Your task to perform on an android device: Search for the best running shoes on Nike. Image 0: 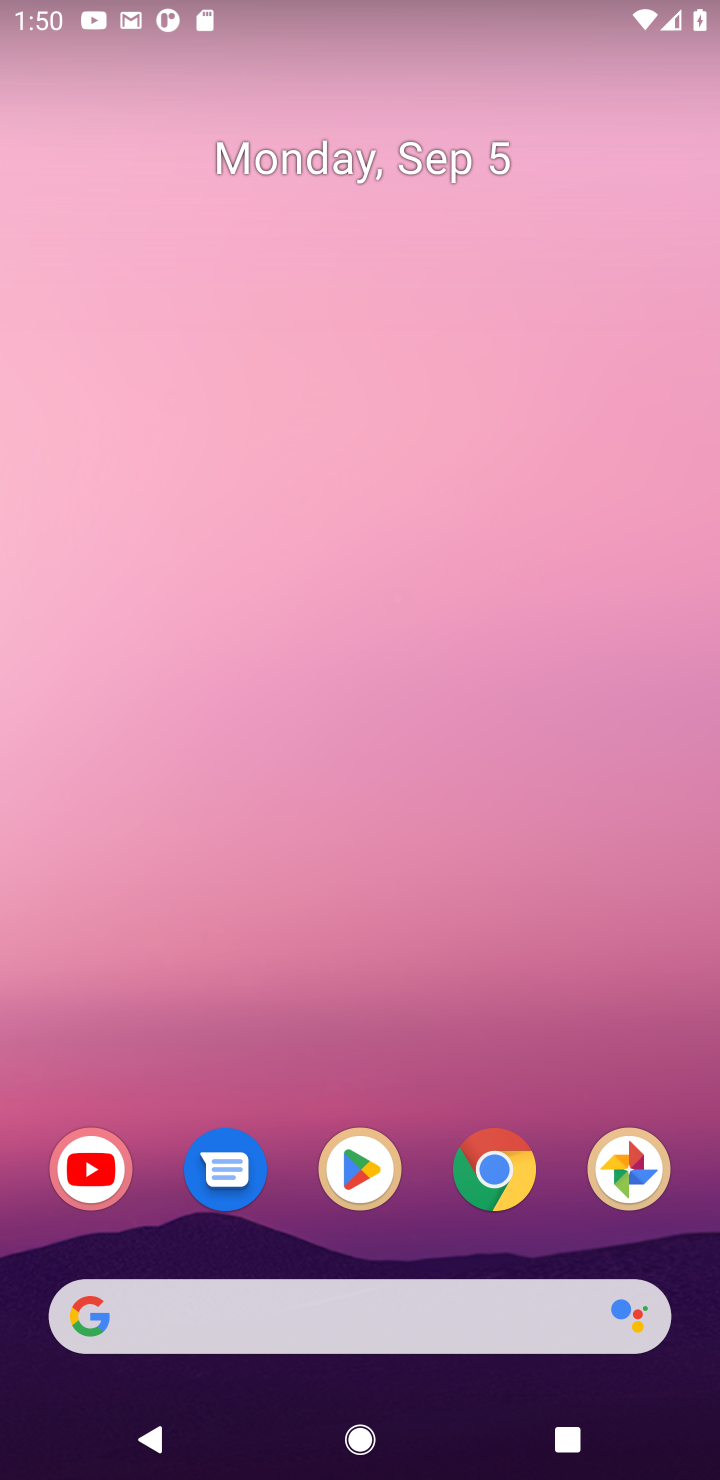
Step 0: click (355, 1184)
Your task to perform on an android device: Search for the best running shoes on Nike. Image 1: 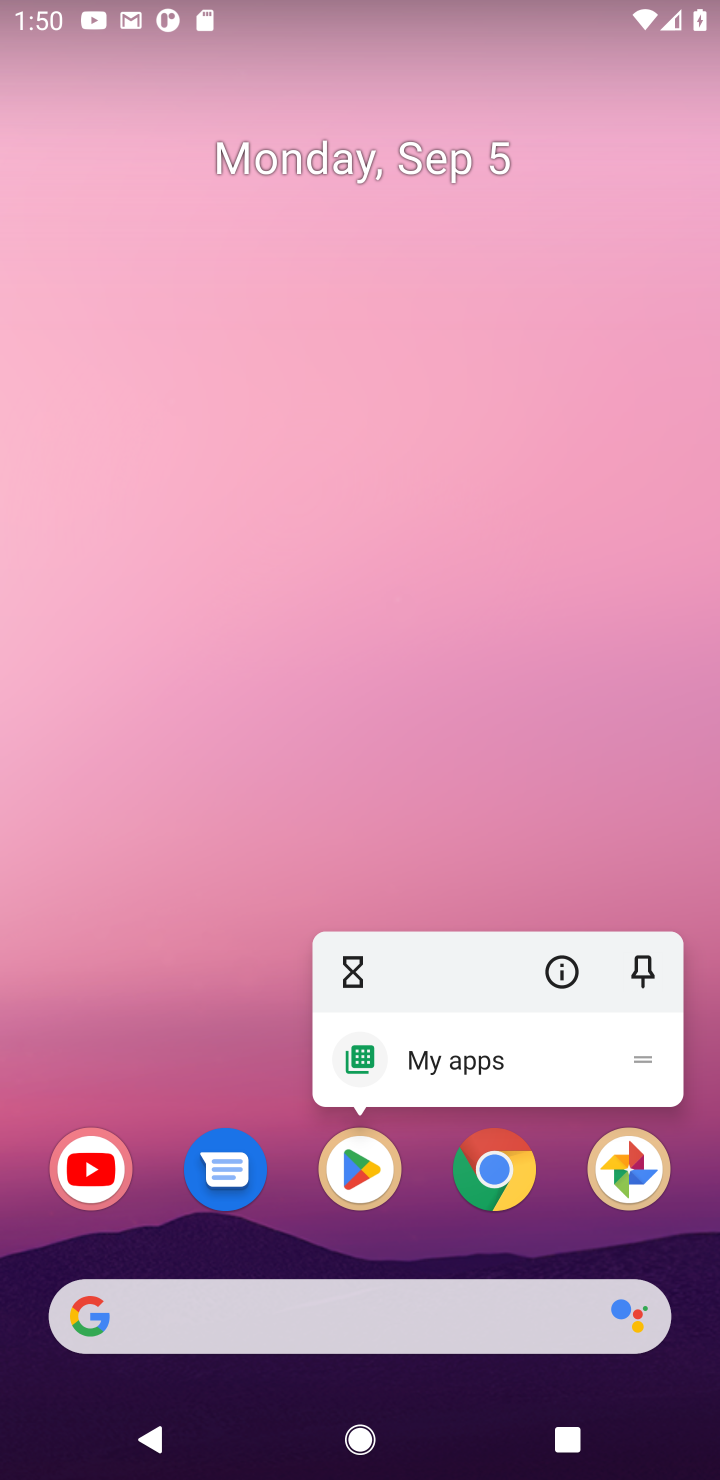
Step 1: click (355, 1184)
Your task to perform on an android device: Search for the best running shoes on Nike. Image 2: 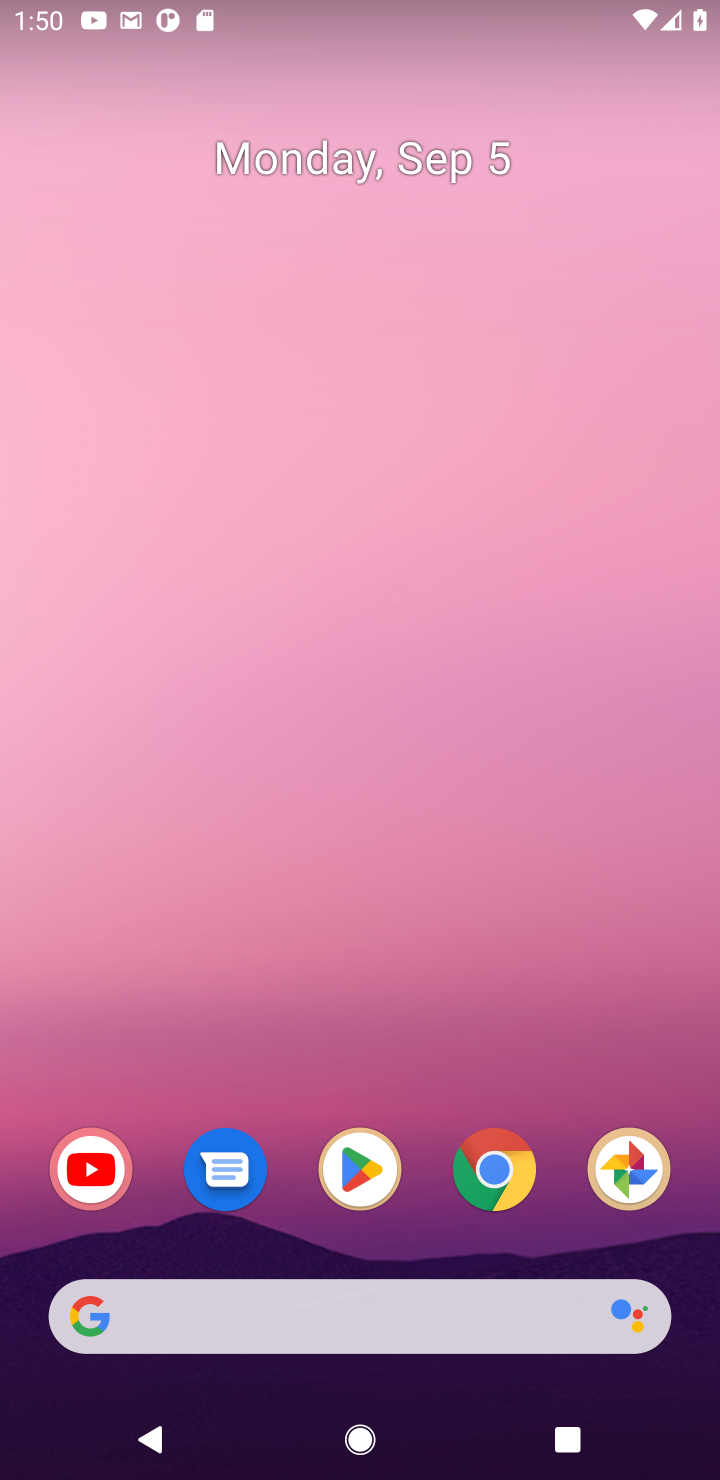
Step 2: click (355, 1184)
Your task to perform on an android device: Search for the best running shoes on Nike. Image 3: 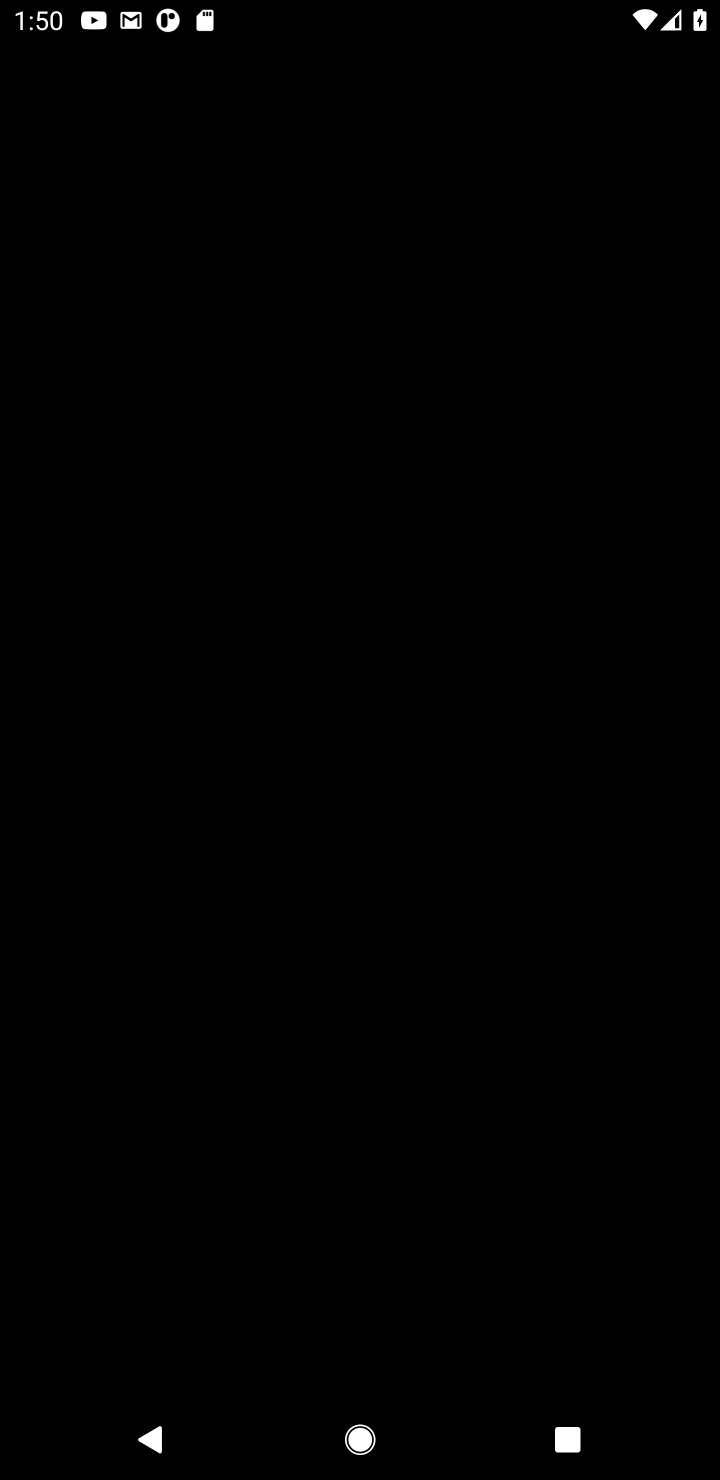
Step 3: task complete